Your task to perform on an android device: What's the weather? Image 0: 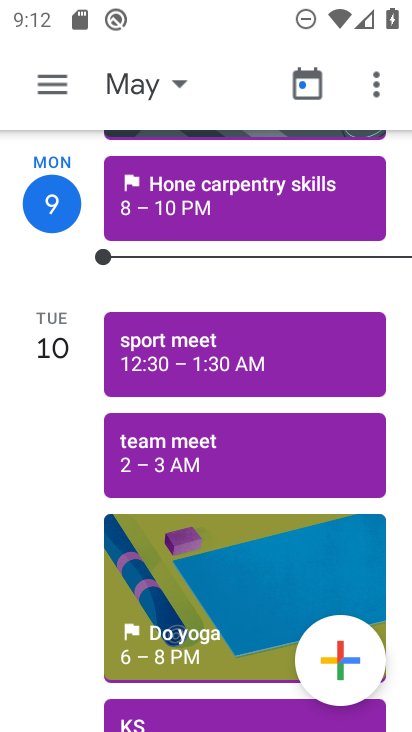
Step 0: press home button
Your task to perform on an android device: What's the weather? Image 1: 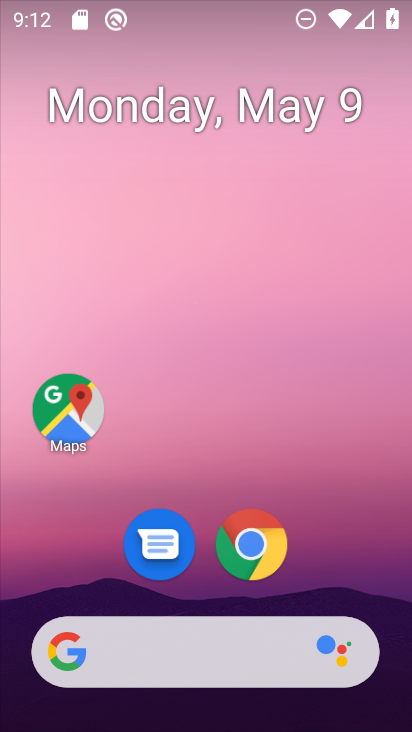
Step 1: click (205, 654)
Your task to perform on an android device: What's the weather? Image 2: 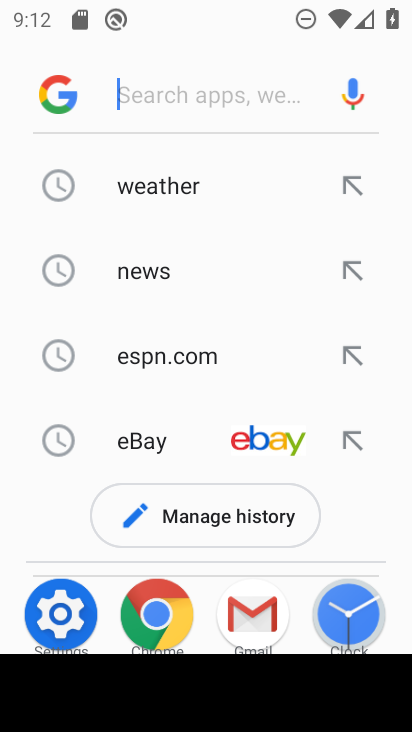
Step 2: click (149, 178)
Your task to perform on an android device: What's the weather? Image 3: 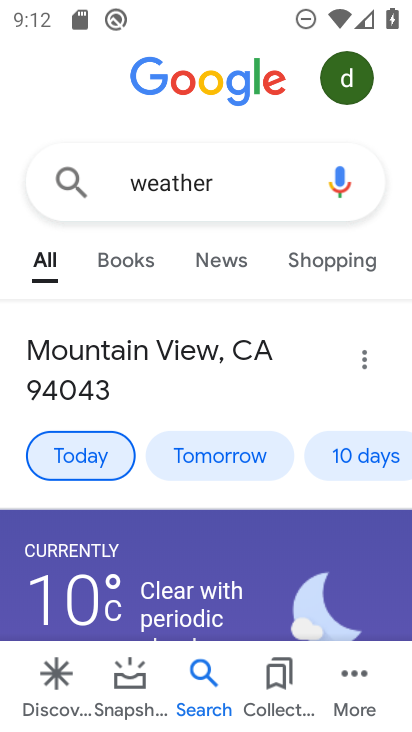
Step 3: task complete